Your task to perform on an android device: turn smart compose on in the gmail app Image 0: 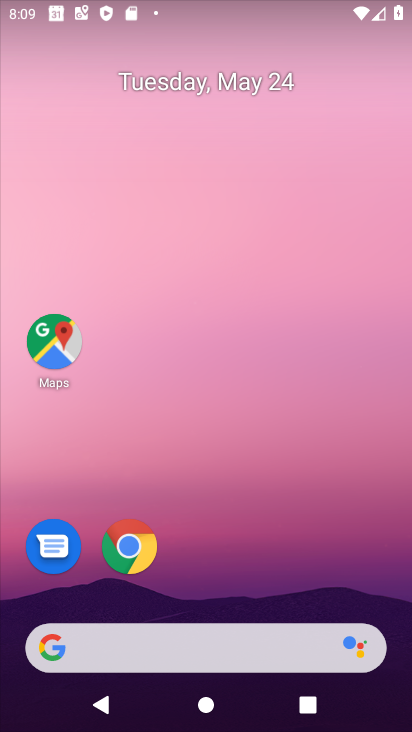
Step 0: drag from (248, 441) to (247, 64)
Your task to perform on an android device: turn smart compose on in the gmail app Image 1: 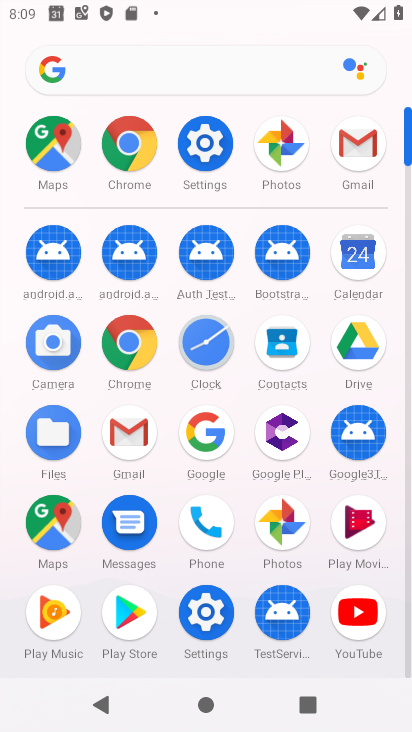
Step 1: click (358, 151)
Your task to perform on an android device: turn smart compose on in the gmail app Image 2: 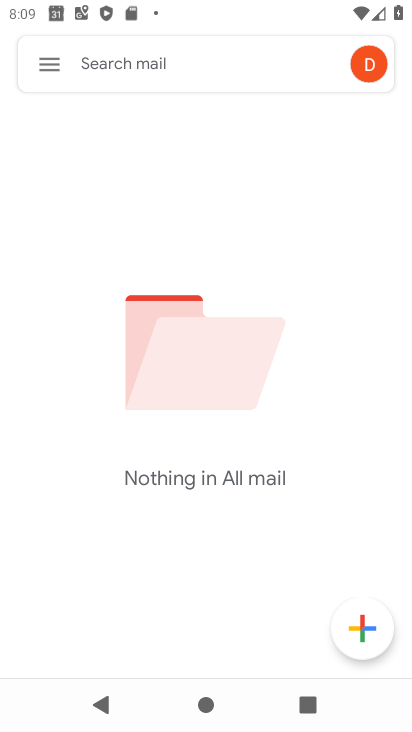
Step 2: click (54, 70)
Your task to perform on an android device: turn smart compose on in the gmail app Image 3: 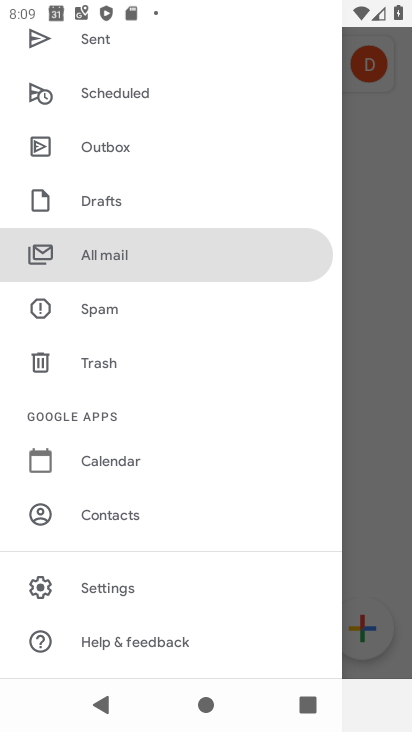
Step 3: click (104, 579)
Your task to perform on an android device: turn smart compose on in the gmail app Image 4: 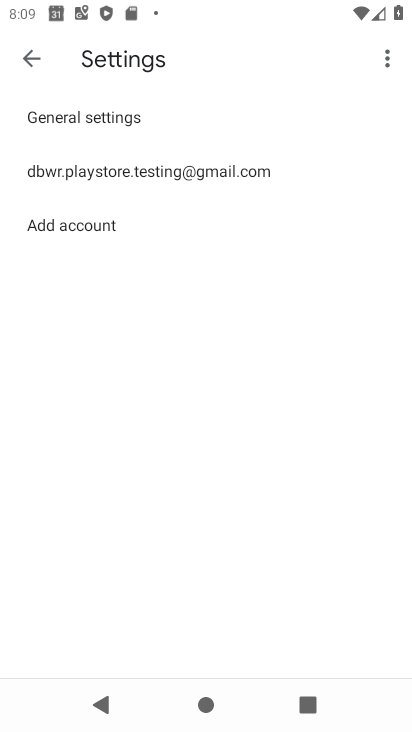
Step 4: click (192, 165)
Your task to perform on an android device: turn smart compose on in the gmail app Image 5: 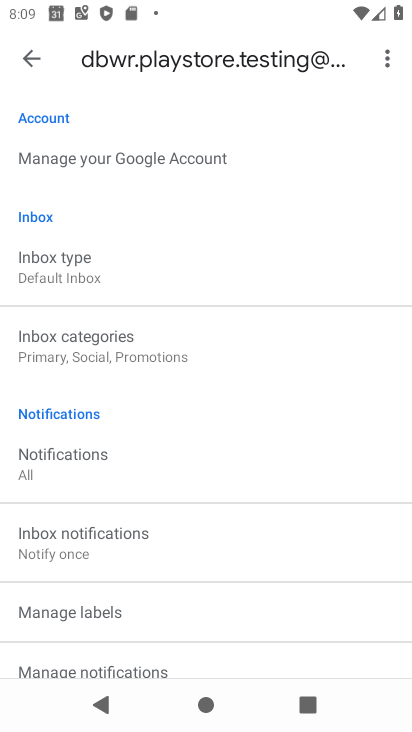
Step 5: task complete